Your task to perform on an android device: toggle show notifications on the lock screen Image 0: 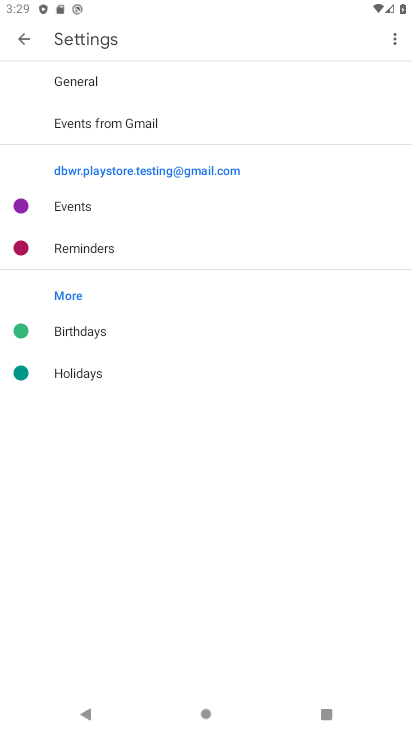
Step 0: press home button
Your task to perform on an android device: toggle show notifications on the lock screen Image 1: 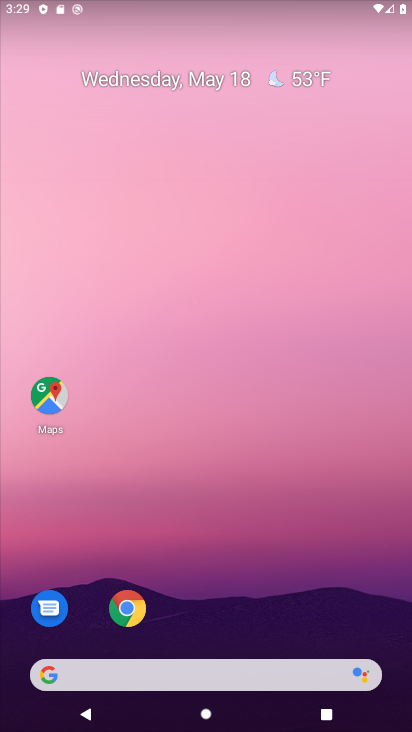
Step 1: drag from (88, 637) to (191, 48)
Your task to perform on an android device: toggle show notifications on the lock screen Image 2: 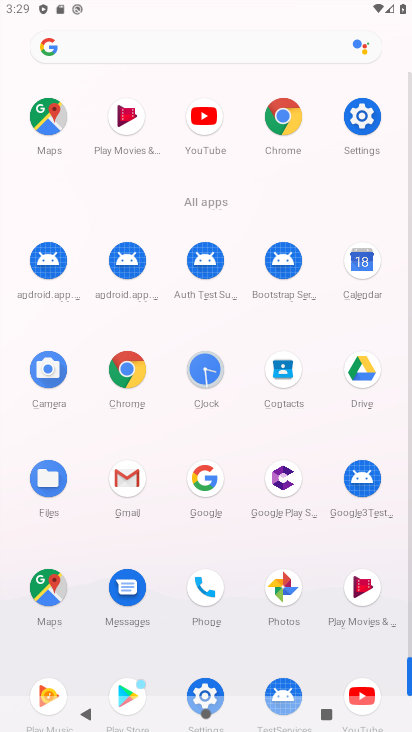
Step 2: click (361, 119)
Your task to perform on an android device: toggle show notifications on the lock screen Image 3: 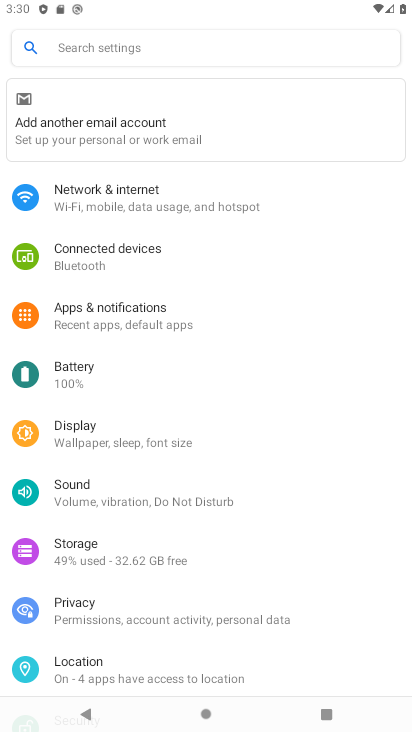
Step 3: click (149, 333)
Your task to perform on an android device: toggle show notifications on the lock screen Image 4: 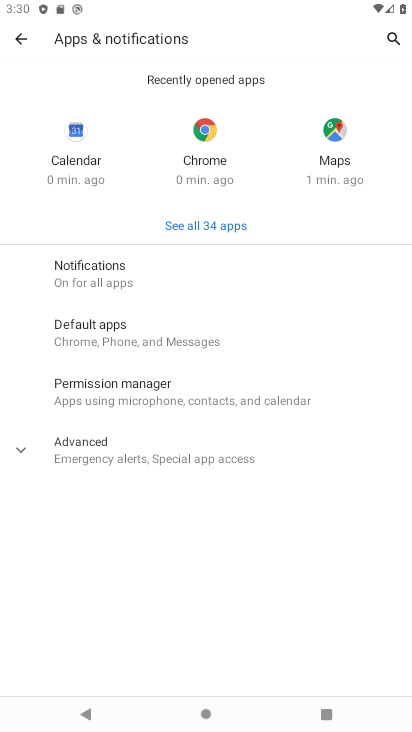
Step 4: click (134, 269)
Your task to perform on an android device: toggle show notifications on the lock screen Image 5: 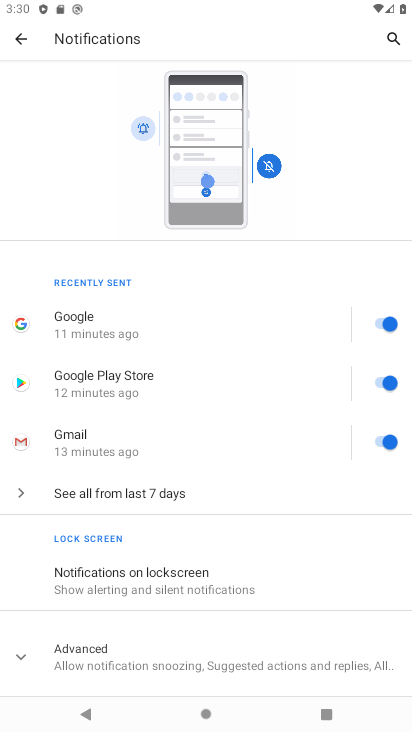
Step 5: click (198, 575)
Your task to perform on an android device: toggle show notifications on the lock screen Image 6: 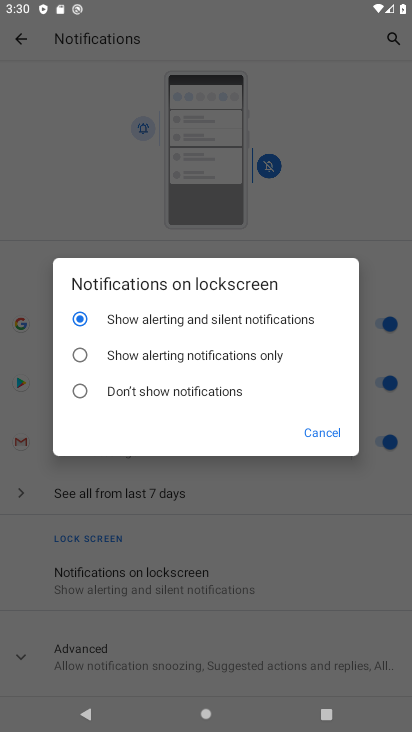
Step 6: click (81, 386)
Your task to perform on an android device: toggle show notifications on the lock screen Image 7: 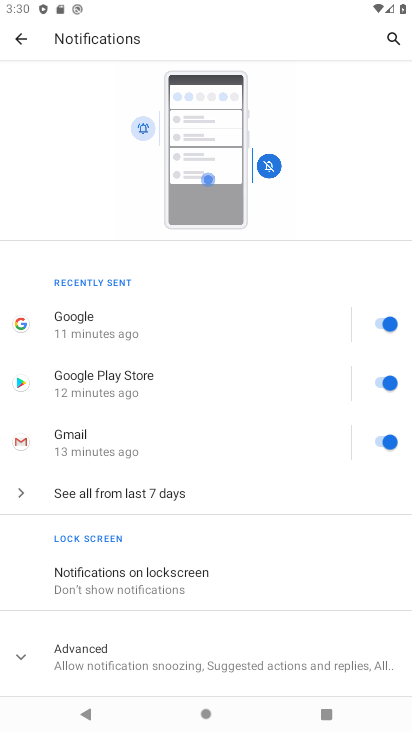
Step 7: task complete